Your task to perform on an android device: toggle notifications settings in the gmail app Image 0: 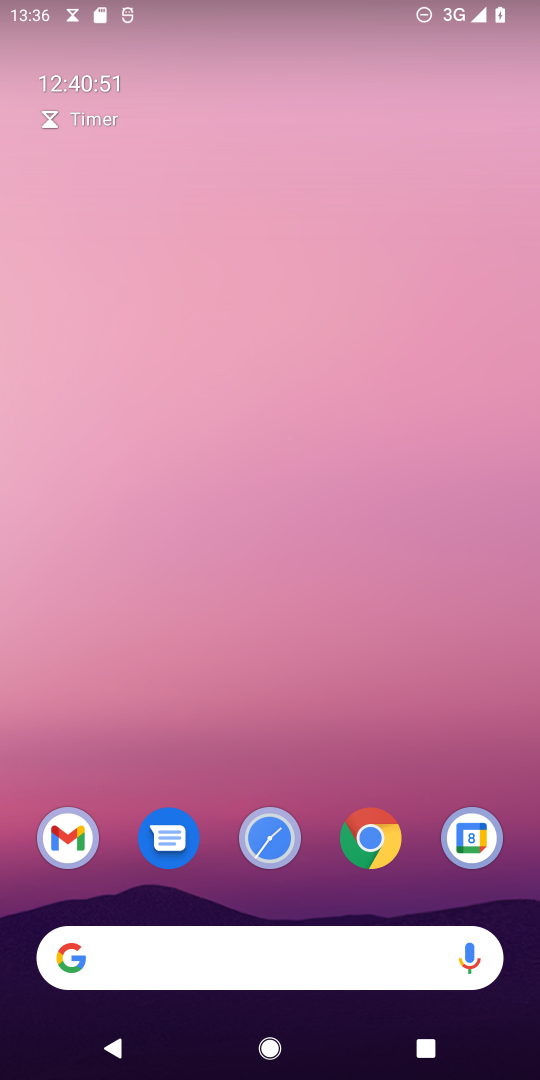
Step 0: press home button
Your task to perform on an android device: toggle notifications settings in the gmail app Image 1: 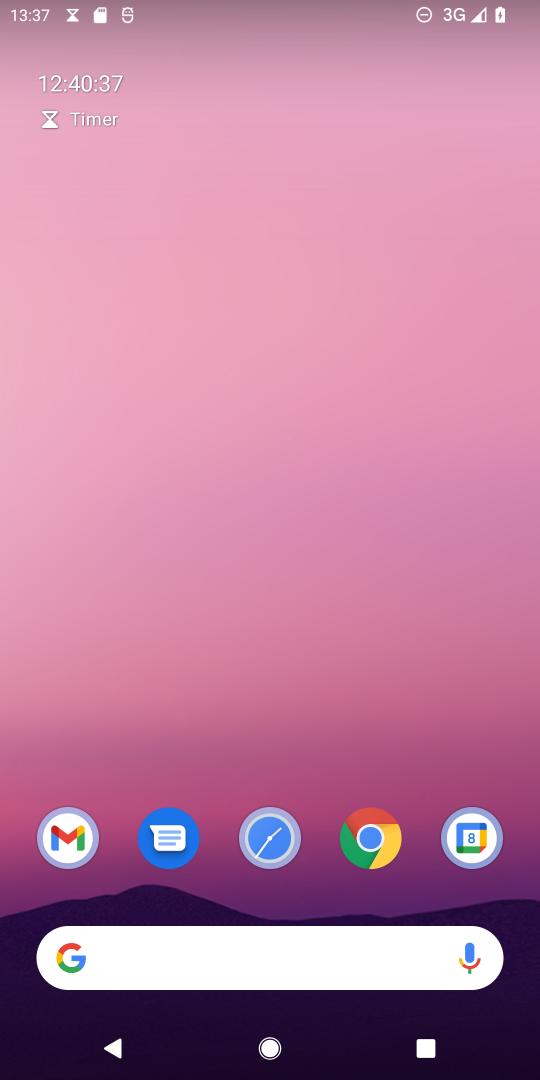
Step 1: click (66, 834)
Your task to perform on an android device: toggle notifications settings in the gmail app Image 2: 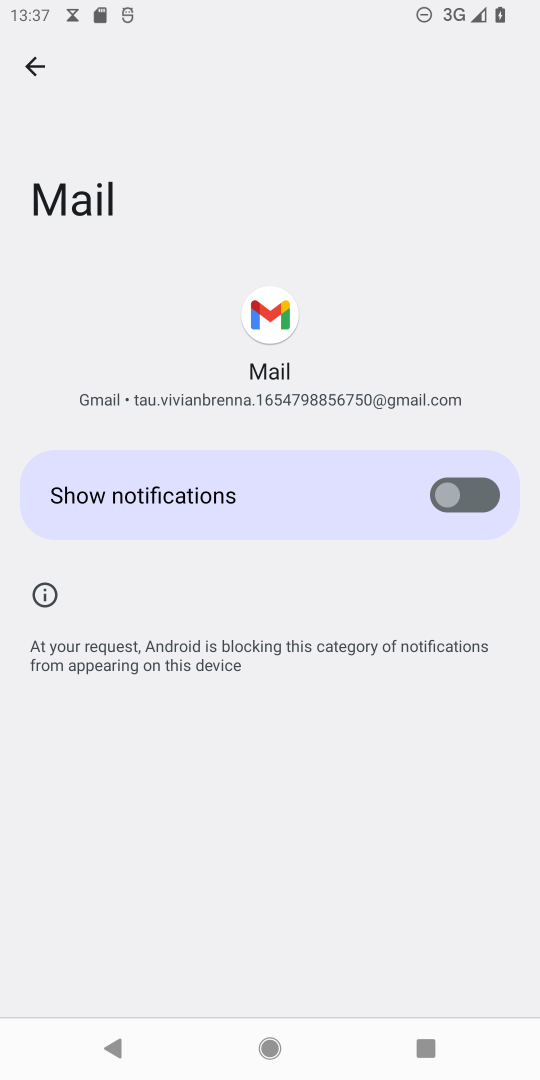
Step 2: click (460, 484)
Your task to perform on an android device: toggle notifications settings in the gmail app Image 3: 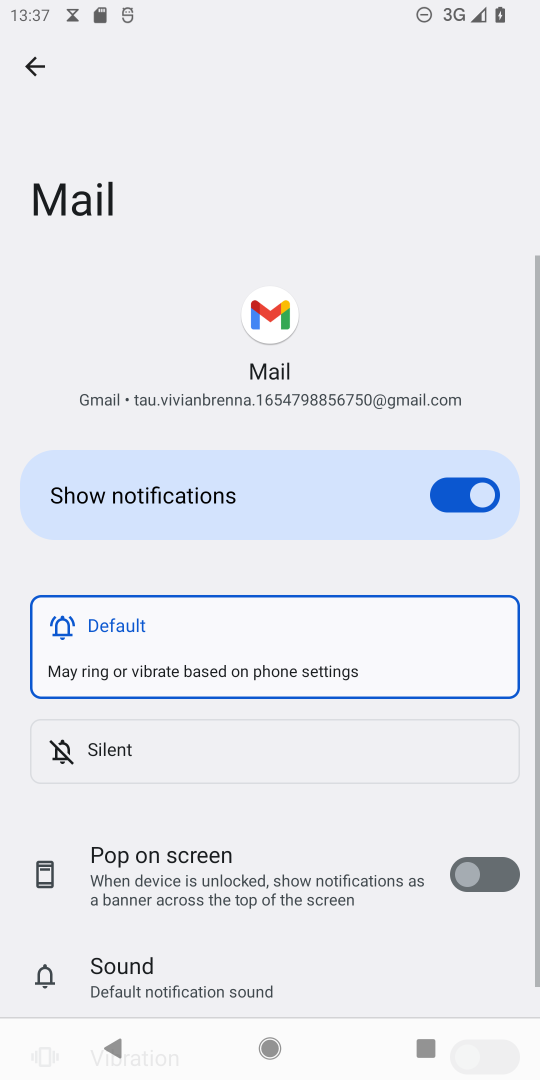
Step 3: task complete